Your task to perform on an android device: Open notification settings Image 0: 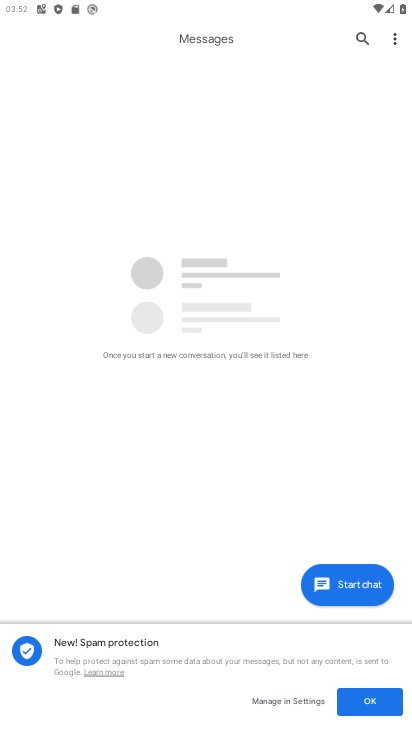
Step 0: press home button
Your task to perform on an android device: Open notification settings Image 1: 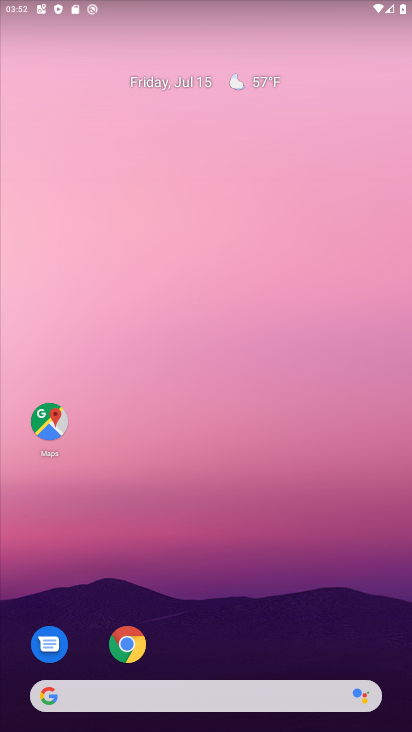
Step 1: drag from (297, 622) to (187, 38)
Your task to perform on an android device: Open notification settings Image 2: 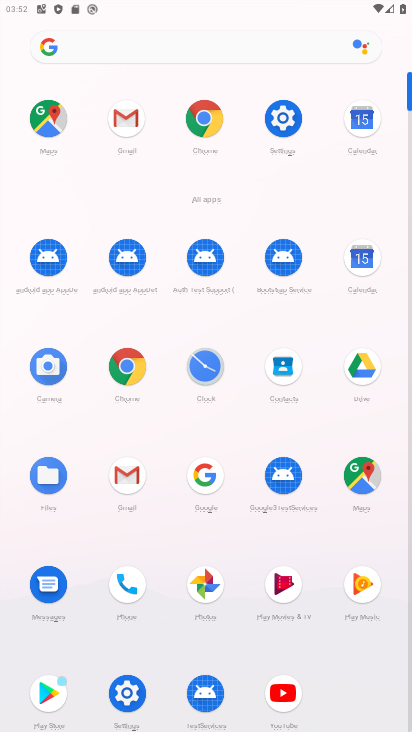
Step 2: click (281, 136)
Your task to perform on an android device: Open notification settings Image 3: 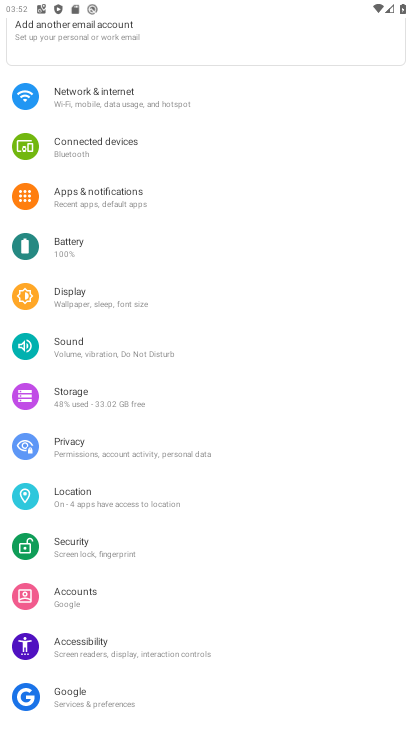
Step 3: click (124, 187)
Your task to perform on an android device: Open notification settings Image 4: 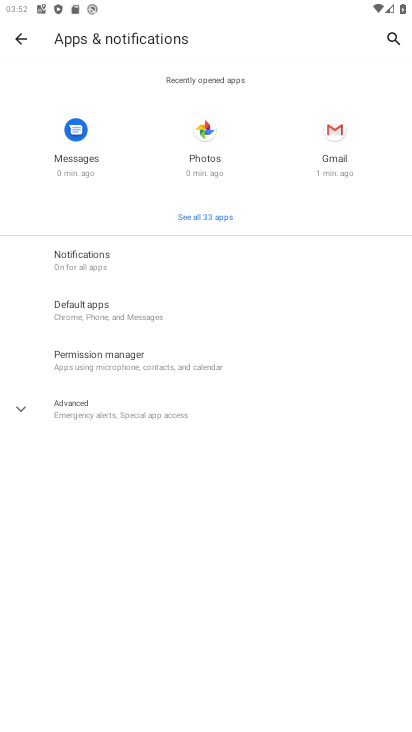
Step 4: click (140, 248)
Your task to perform on an android device: Open notification settings Image 5: 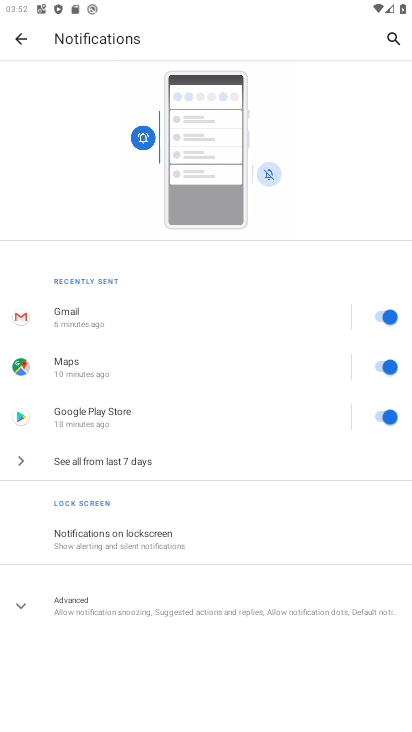
Step 5: task complete